Your task to perform on an android device: Open Reddit.com Image 0: 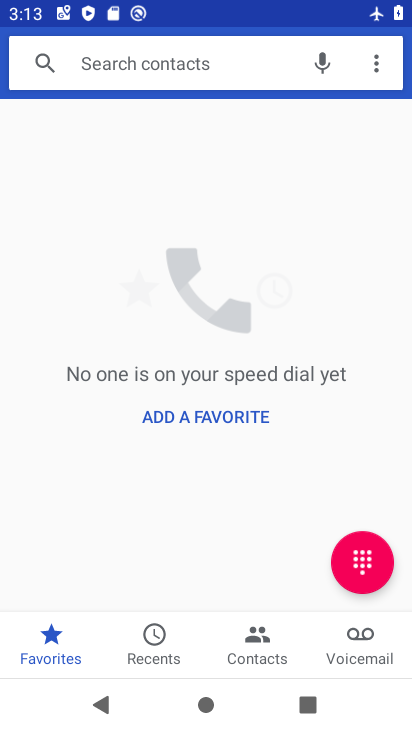
Step 0: press home button
Your task to perform on an android device: Open Reddit.com Image 1: 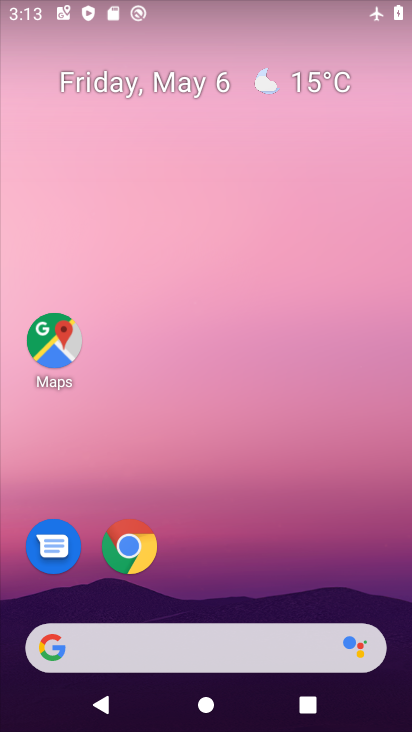
Step 1: click (116, 547)
Your task to perform on an android device: Open Reddit.com Image 2: 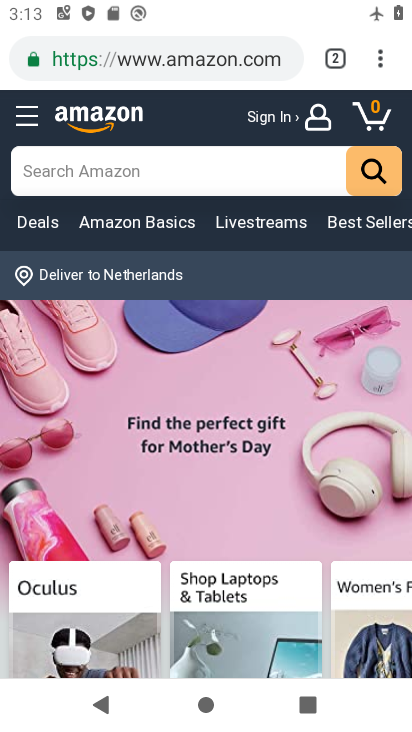
Step 2: click (199, 52)
Your task to perform on an android device: Open Reddit.com Image 3: 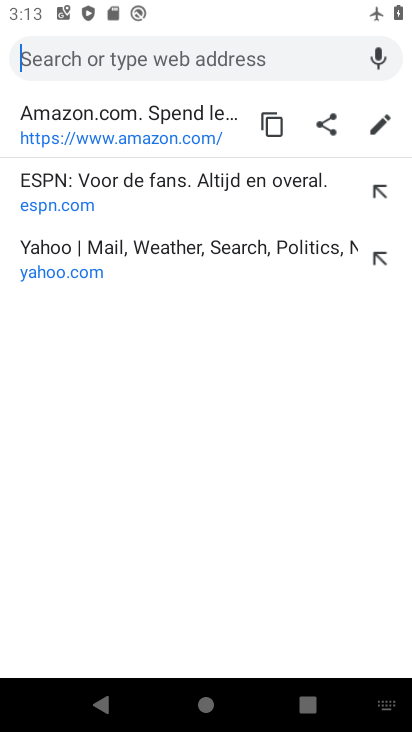
Step 3: type "Reddit.com"
Your task to perform on an android device: Open Reddit.com Image 4: 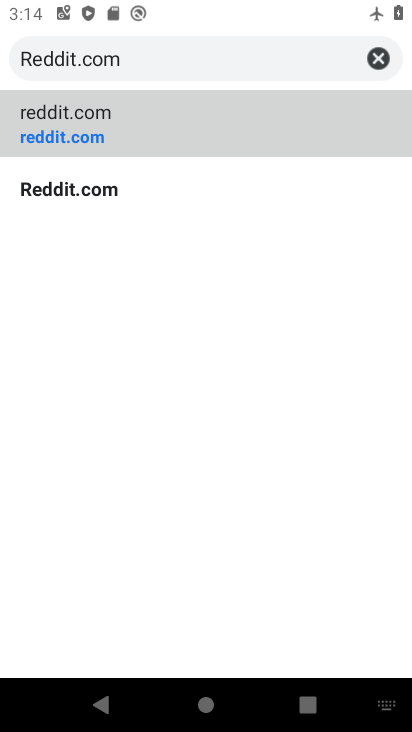
Step 4: click (86, 139)
Your task to perform on an android device: Open Reddit.com Image 5: 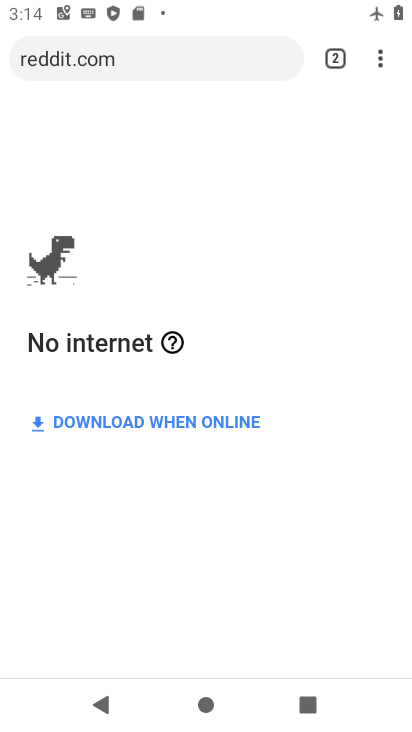
Step 5: task complete